Your task to perform on an android device: Open maps Image 0: 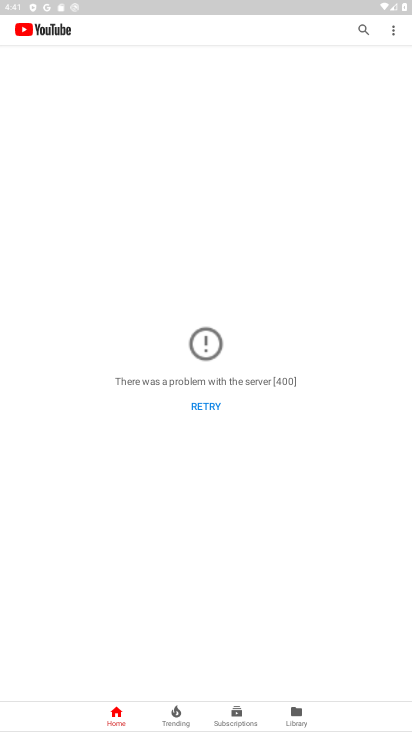
Step 0: press home button
Your task to perform on an android device: Open maps Image 1: 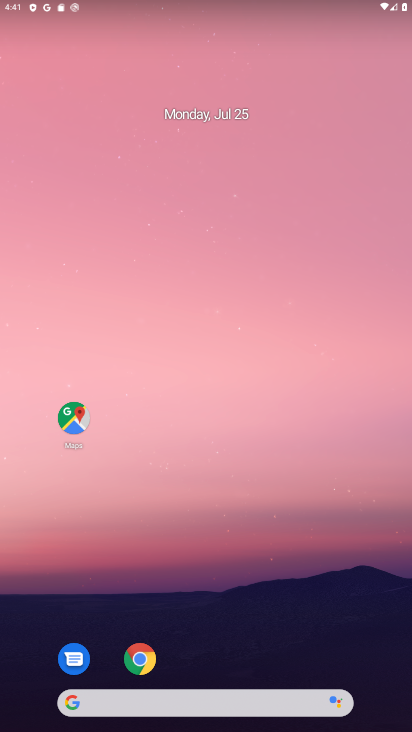
Step 1: click (69, 413)
Your task to perform on an android device: Open maps Image 2: 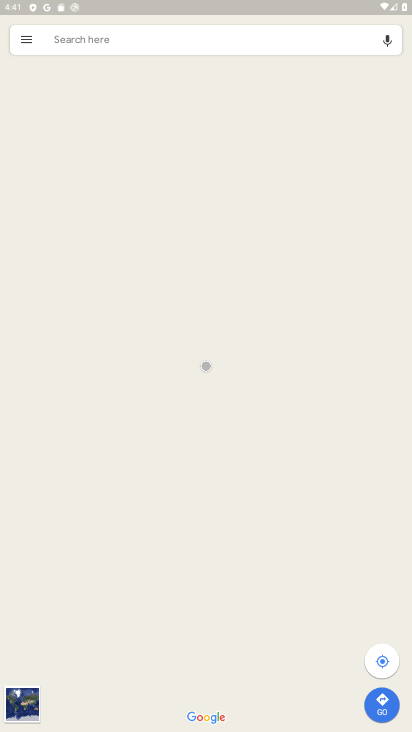
Step 2: task complete